Your task to perform on an android device: change the clock display to show seconds Image 0: 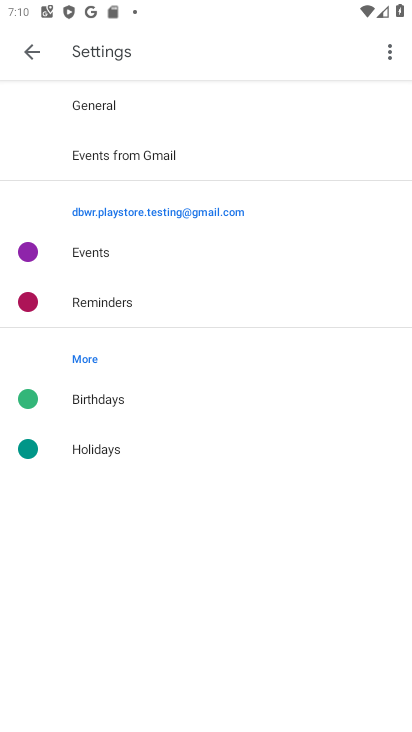
Step 0: press home button
Your task to perform on an android device: change the clock display to show seconds Image 1: 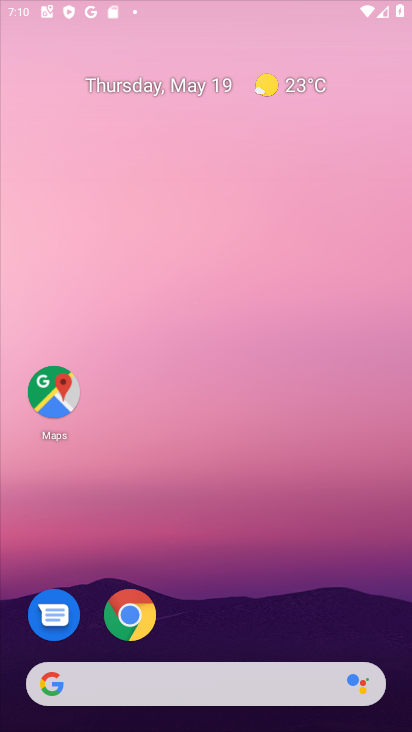
Step 1: drag from (329, 626) to (357, 64)
Your task to perform on an android device: change the clock display to show seconds Image 2: 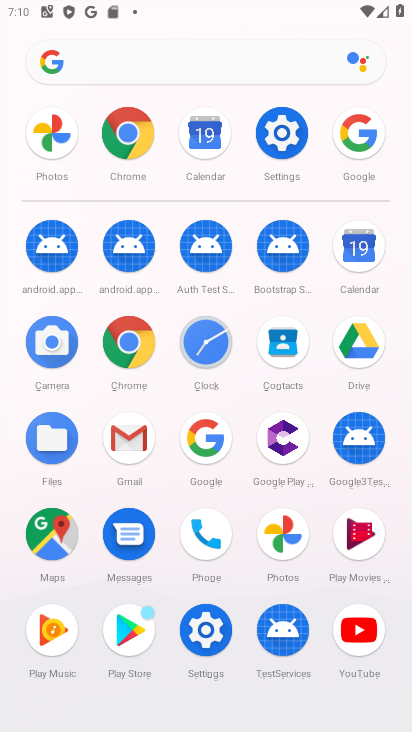
Step 2: click (223, 333)
Your task to perform on an android device: change the clock display to show seconds Image 3: 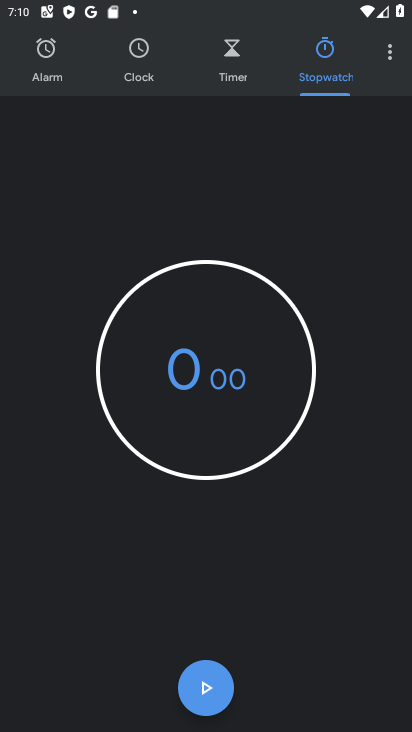
Step 3: click (388, 52)
Your task to perform on an android device: change the clock display to show seconds Image 4: 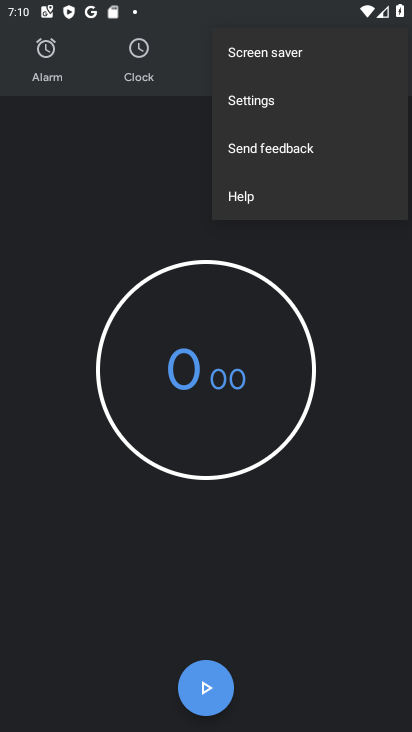
Step 4: click (238, 103)
Your task to perform on an android device: change the clock display to show seconds Image 5: 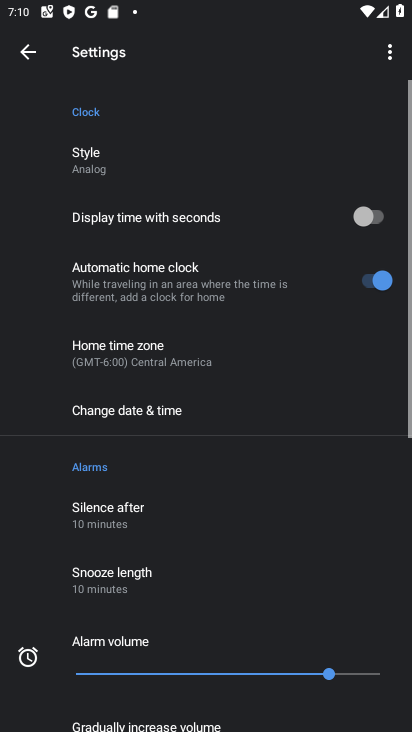
Step 5: click (338, 225)
Your task to perform on an android device: change the clock display to show seconds Image 6: 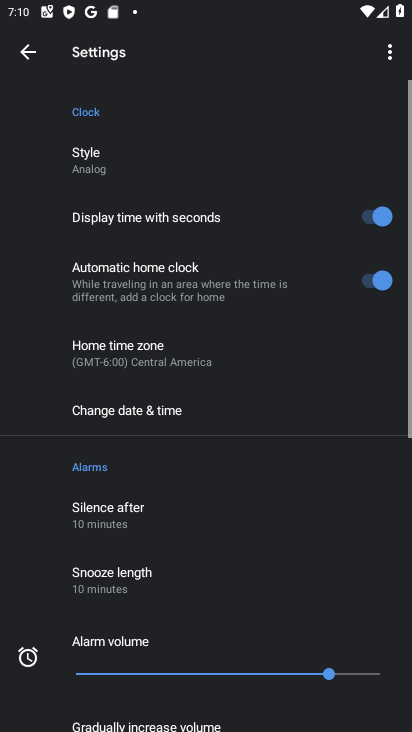
Step 6: task complete